Your task to perform on an android device: Open the phone app and click the voicemail tab. Image 0: 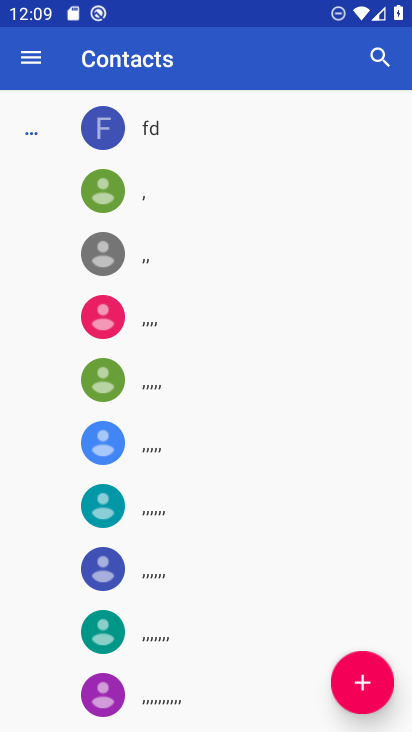
Step 0: press home button
Your task to perform on an android device: Open the phone app and click the voicemail tab. Image 1: 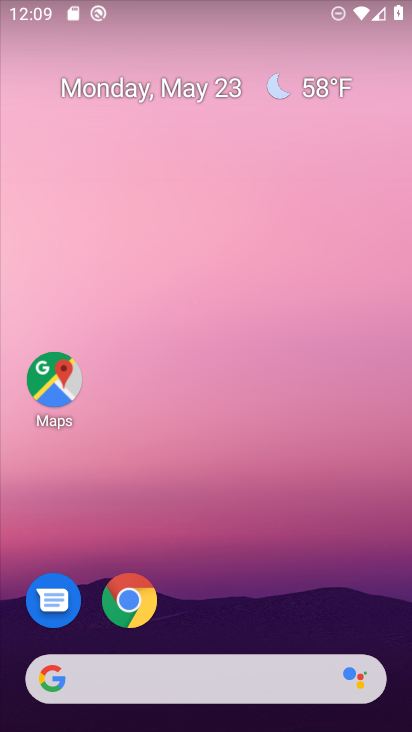
Step 1: drag from (298, 554) to (379, 134)
Your task to perform on an android device: Open the phone app and click the voicemail tab. Image 2: 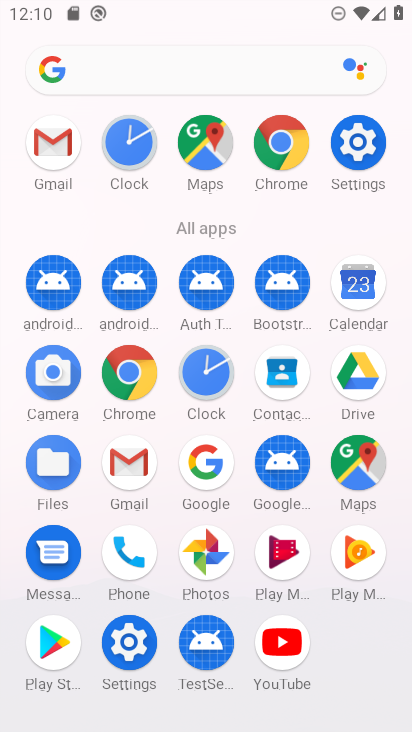
Step 2: click (132, 561)
Your task to perform on an android device: Open the phone app and click the voicemail tab. Image 3: 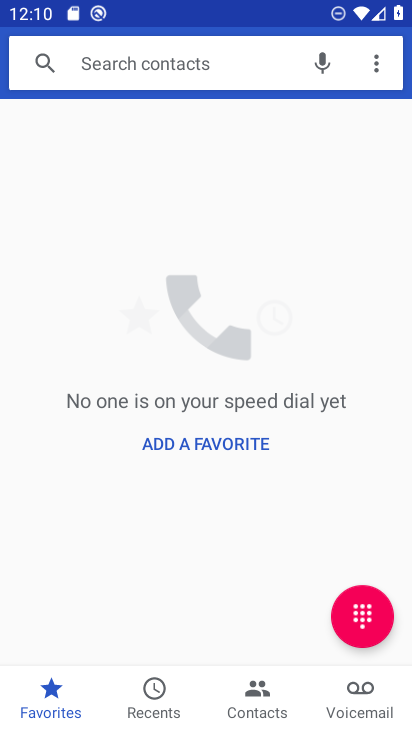
Step 3: click (360, 713)
Your task to perform on an android device: Open the phone app and click the voicemail tab. Image 4: 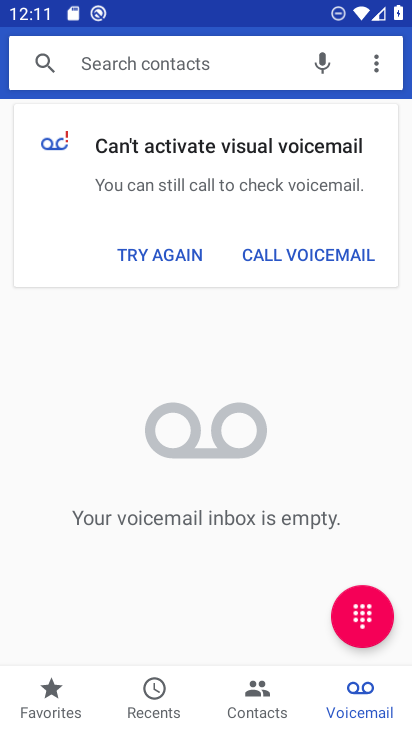
Step 4: task complete